Your task to perform on an android device: set an alarm Image 0: 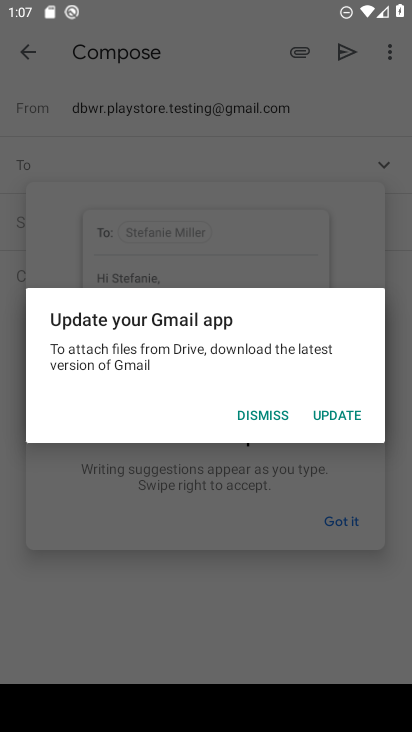
Step 0: press home button
Your task to perform on an android device: set an alarm Image 1: 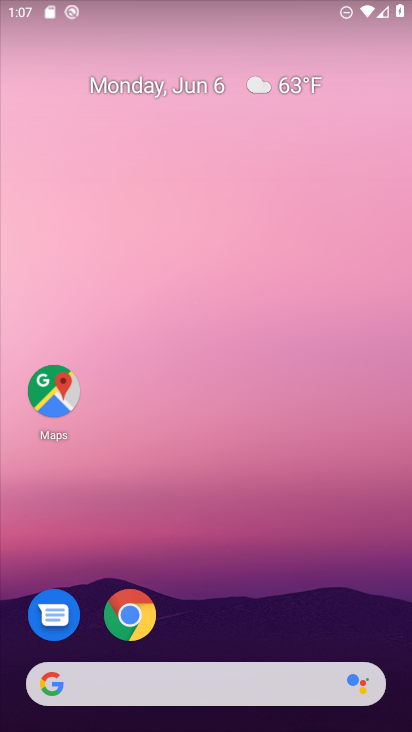
Step 1: drag from (292, 555) to (263, 0)
Your task to perform on an android device: set an alarm Image 2: 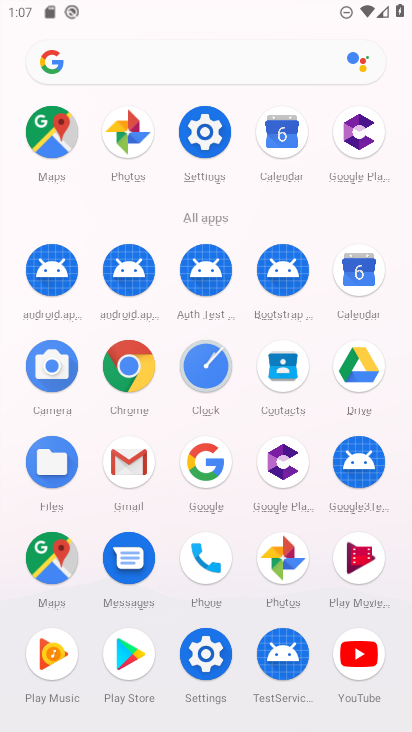
Step 2: click (202, 358)
Your task to perform on an android device: set an alarm Image 3: 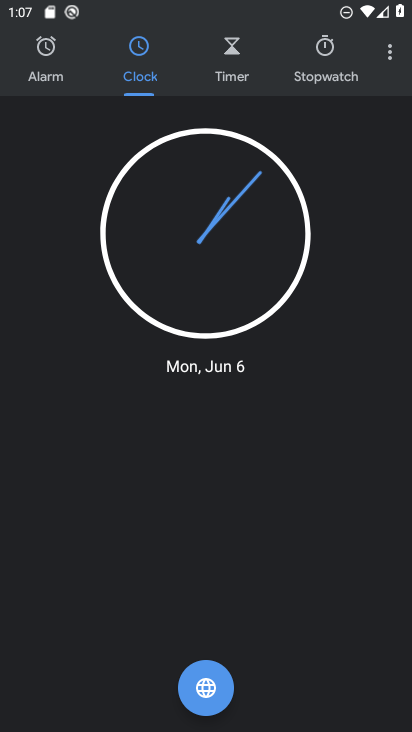
Step 3: click (59, 73)
Your task to perform on an android device: set an alarm Image 4: 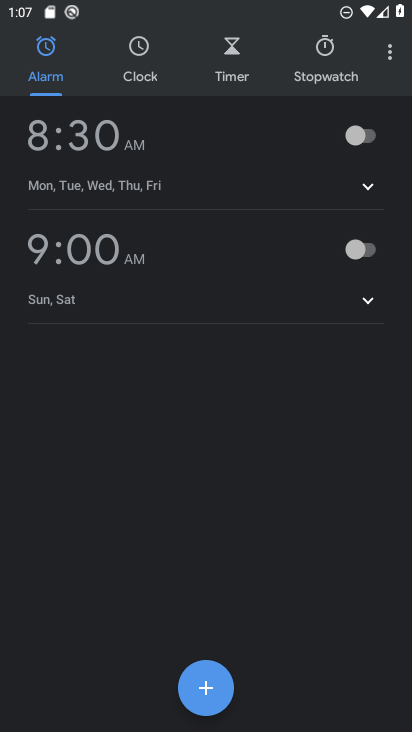
Step 4: click (202, 683)
Your task to perform on an android device: set an alarm Image 5: 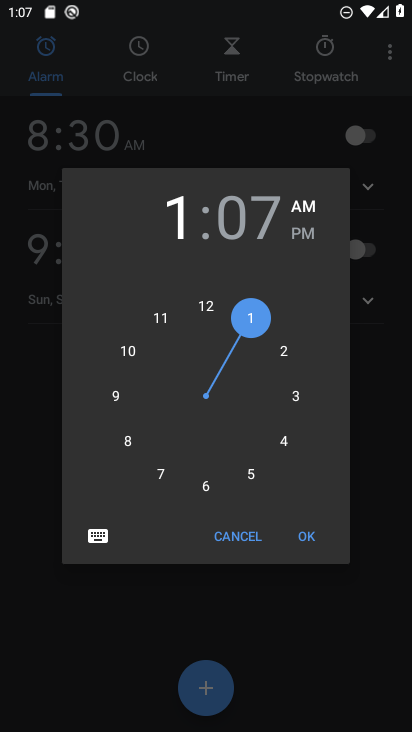
Step 5: click (309, 536)
Your task to perform on an android device: set an alarm Image 6: 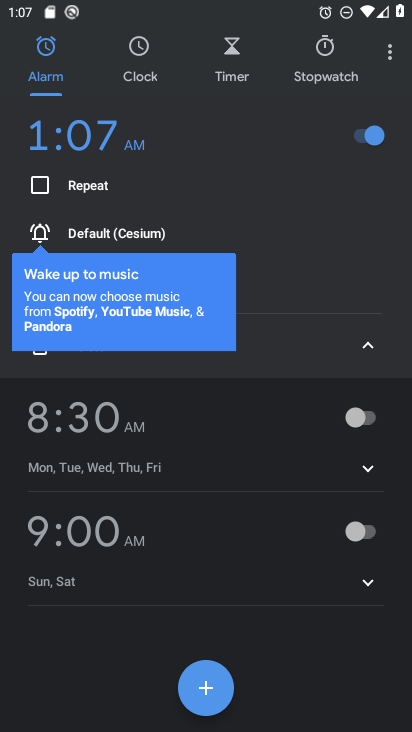
Step 6: click (364, 349)
Your task to perform on an android device: set an alarm Image 7: 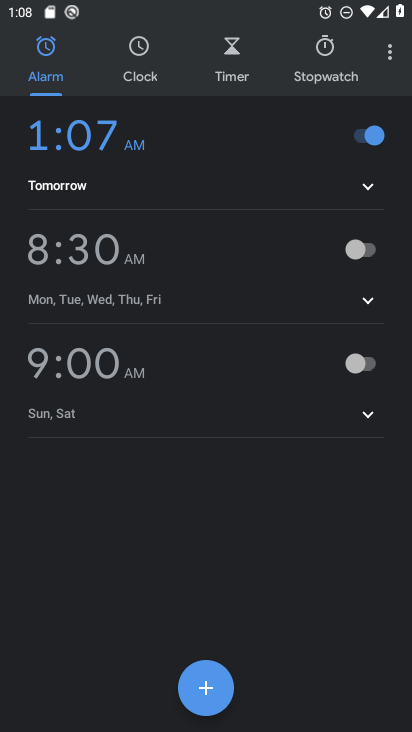
Step 7: task complete